Your task to perform on an android device: open app "Facebook Messenger" (install if not already installed) Image 0: 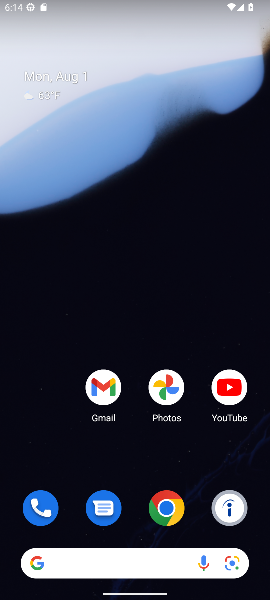
Step 0: drag from (153, 538) to (103, 104)
Your task to perform on an android device: open app "Facebook Messenger" (install if not already installed) Image 1: 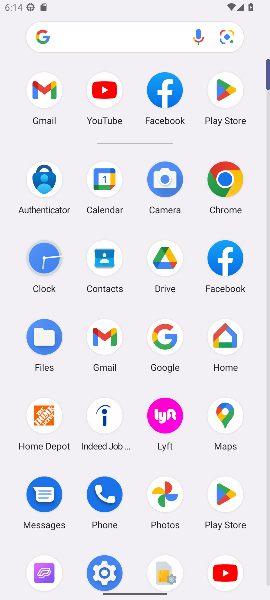
Step 1: click (215, 499)
Your task to perform on an android device: open app "Facebook Messenger" (install if not already installed) Image 2: 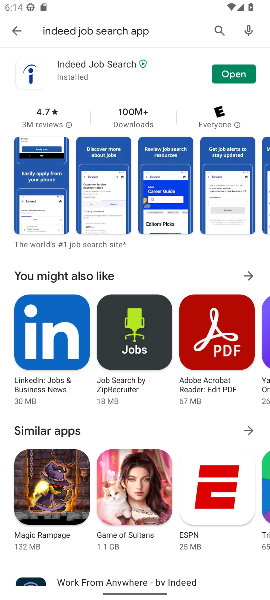
Step 2: click (12, 34)
Your task to perform on an android device: open app "Facebook Messenger" (install if not already installed) Image 3: 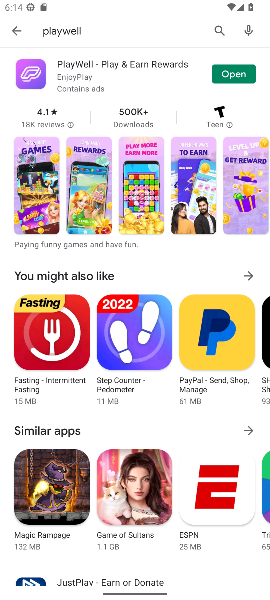
Step 3: click (18, 25)
Your task to perform on an android device: open app "Facebook Messenger" (install if not already installed) Image 4: 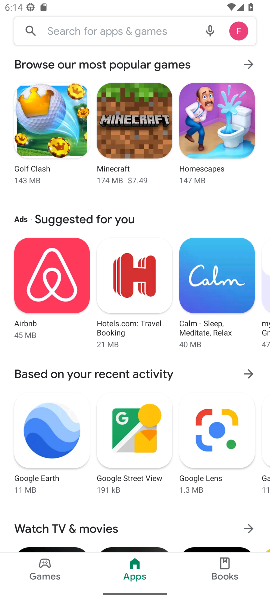
Step 4: type "Facebook Messenger"
Your task to perform on an android device: open app "Facebook Messenger" (install if not already installed) Image 5: 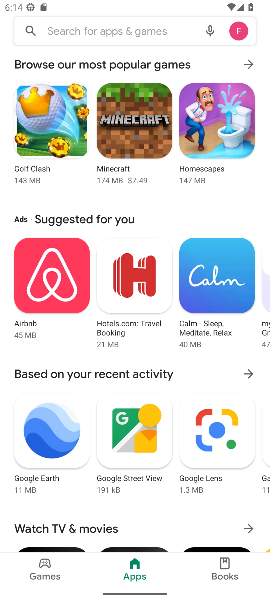
Step 5: click (85, 33)
Your task to perform on an android device: open app "Facebook Messenger" (install if not already installed) Image 6: 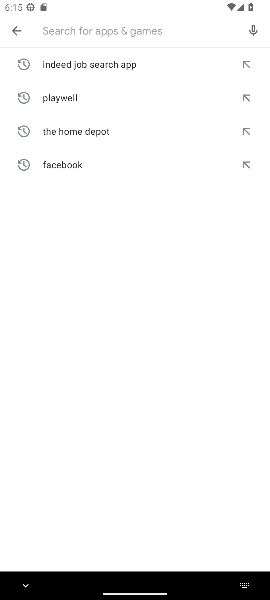
Step 6: type "Facebook Messenger"
Your task to perform on an android device: open app "Facebook Messenger" (install if not already installed) Image 7: 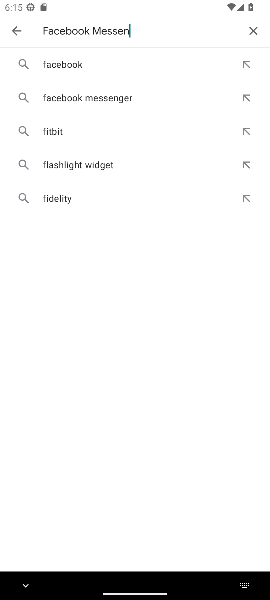
Step 7: type ""
Your task to perform on an android device: open app "Facebook Messenger" (install if not already installed) Image 8: 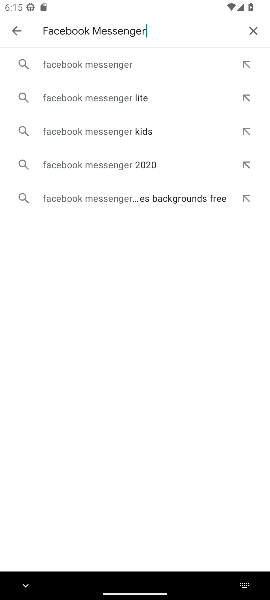
Step 8: click (82, 72)
Your task to perform on an android device: open app "Facebook Messenger" (install if not already installed) Image 9: 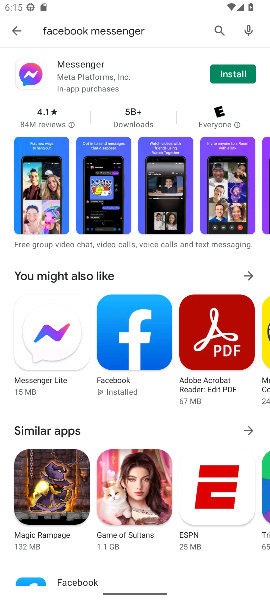
Step 9: drag from (107, 438) to (121, 114)
Your task to perform on an android device: open app "Facebook Messenger" (install if not already installed) Image 10: 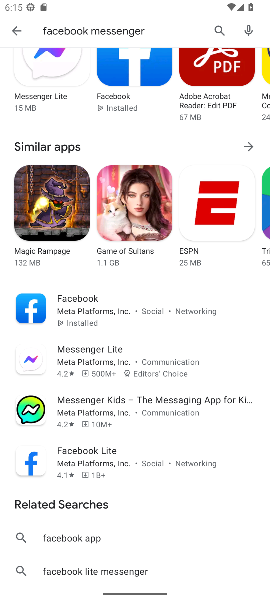
Step 10: drag from (150, 230) to (178, 597)
Your task to perform on an android device: open app "Facebook Messenger" (install if not already installed) Image 11: 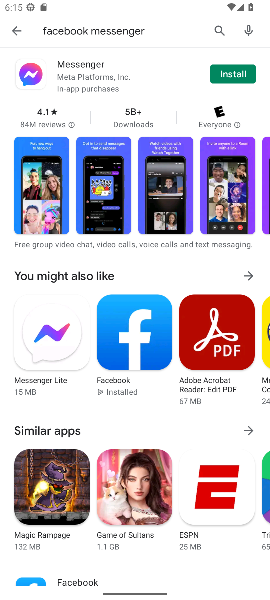
Step 11: click (225, 77)
Your task to perform on an android device: open app "Facebook Messenger" (install if not already installed) Image 12: 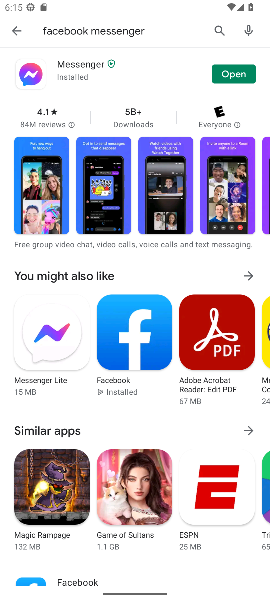
Step 12: click (233, 64)
Your task to perform on an android device: open app "Facebook Messenger" (install if not already installed) Image 13: 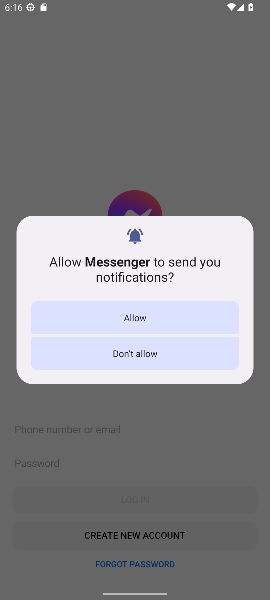
Step 13: task complete